Your task to perform on an android device: add a contact Image 0: 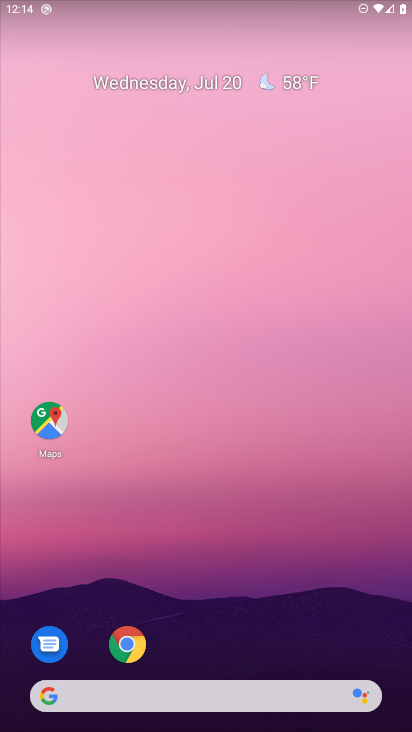
Step 0: drag from (126, 299) to (203, 89)
Your task to perform on an android device: add a contact Image 1: 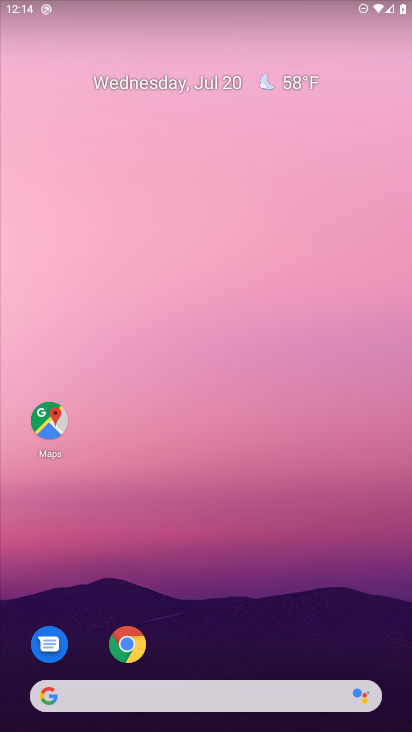
Step 1: drag from (27, 648) to (239, 81)
Your task to perform on an android device: add a contact Image 2: 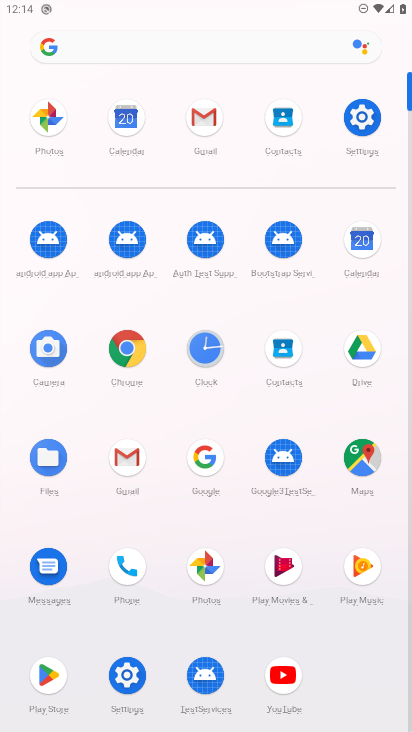
Step 2: click (131, 576)
Your task to perform on an android device: add a contact Image 3: 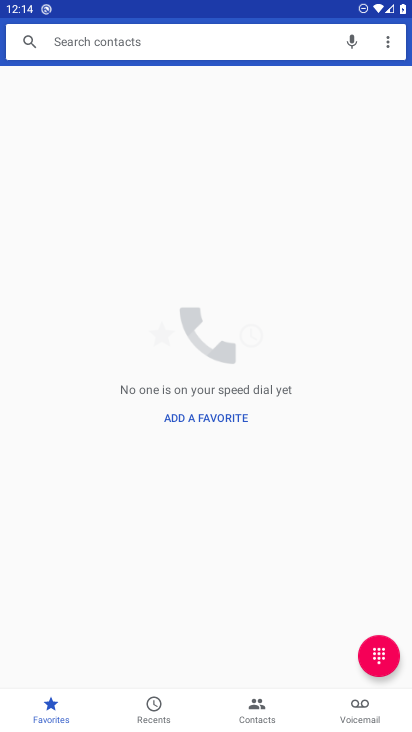
Step 3: click (389, 45)
Your task to perform on an android device: add a contact Image 4: 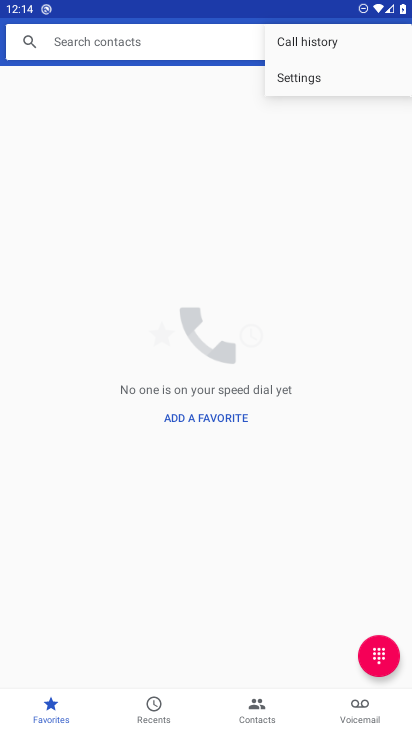
Step 4: click (286, 152)
Your task to perform on an android device: add a contact Image 5: 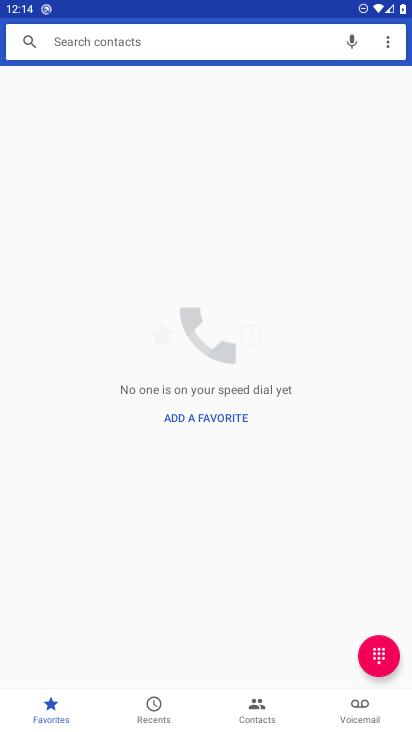
Step 5: task complete